Your task to perform on an android device: Is it going to rain today? Image 0: 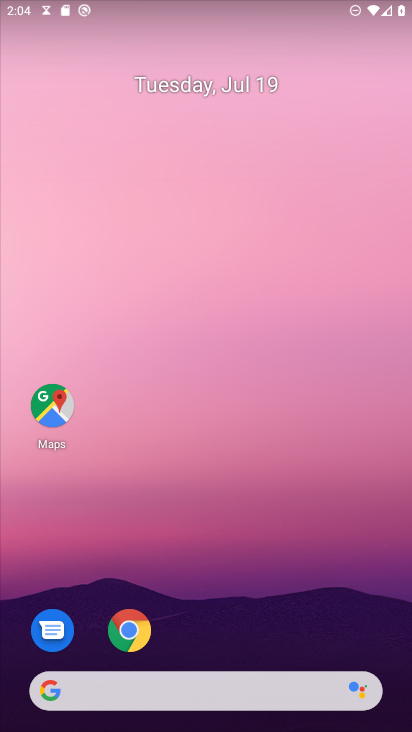
Step 0: press home button
Your task to perform on an android device: Is it going to rain today? Image 1: 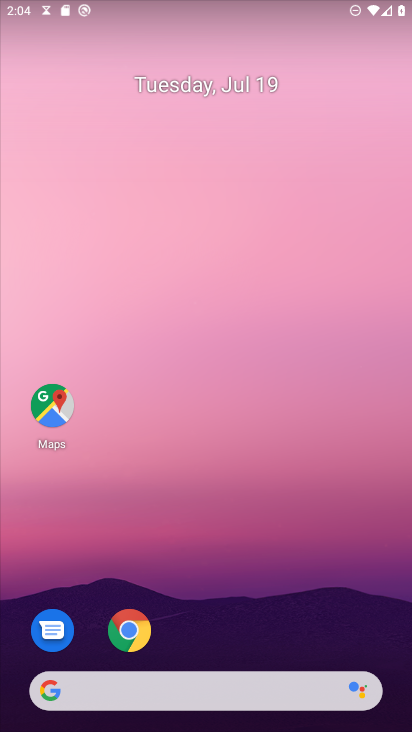
Step 1: click (158, 687)
Your task to perform on an android device: Is it going to rain today? Image 2: 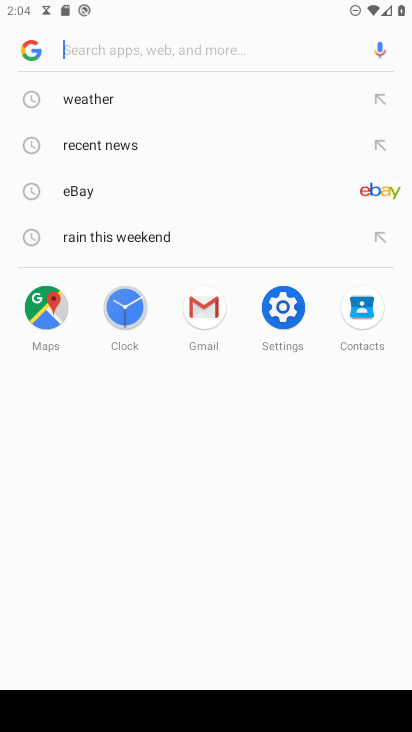
Step 2: click (95, 99)
Your task to perform on an android device: Is it going to rain today? Image 3: 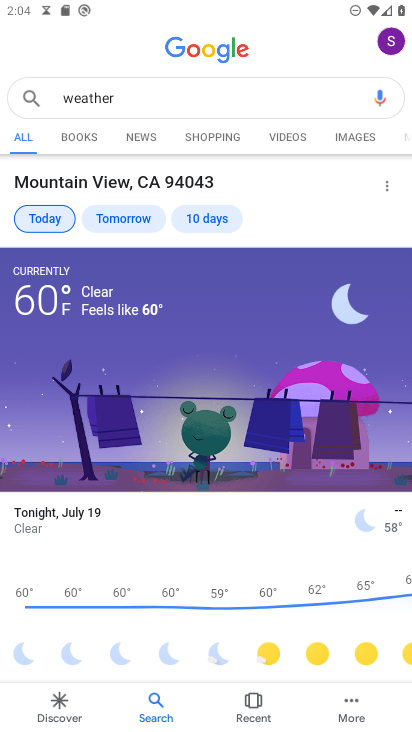
Step 3: task complete